Your task to perform on an android device: Search for the best rated TV on Target Image 0: 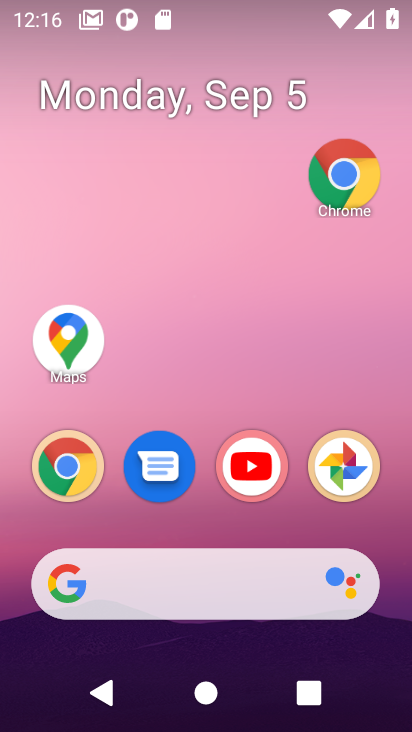
Step 0: drag from (293, 373) to (343, 17)
Your task to perform on an android device: Search for the best rated TV on Target Image 1: 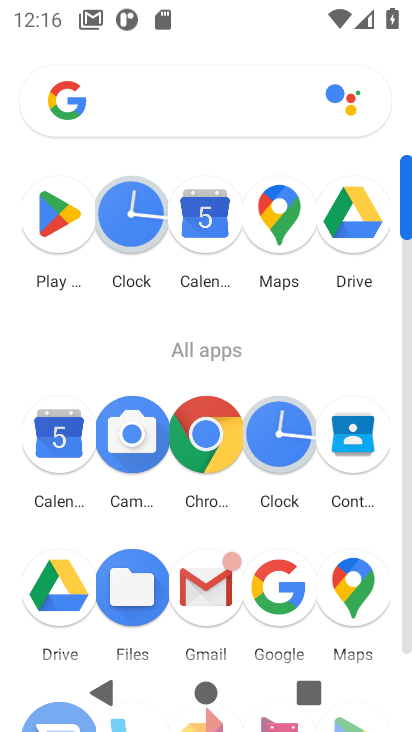
Step 1: click (202, 447)
Your task to perform on an android device: Search for the best rated TV on Target Image 2: 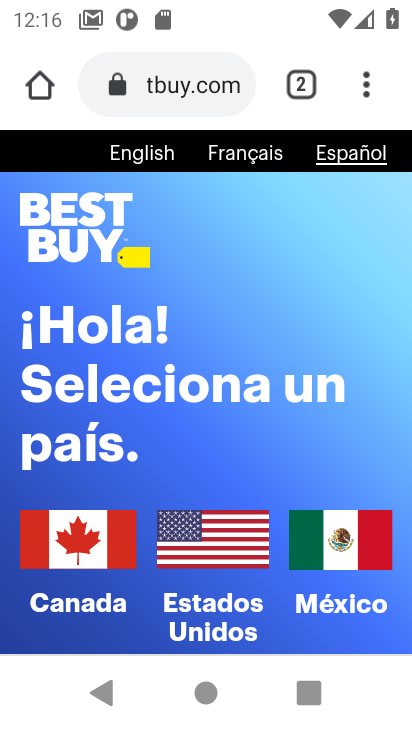
Step 2: click (183, 85)
Your task to perform on an android device: Search for the best rated TV on Target Image 3: 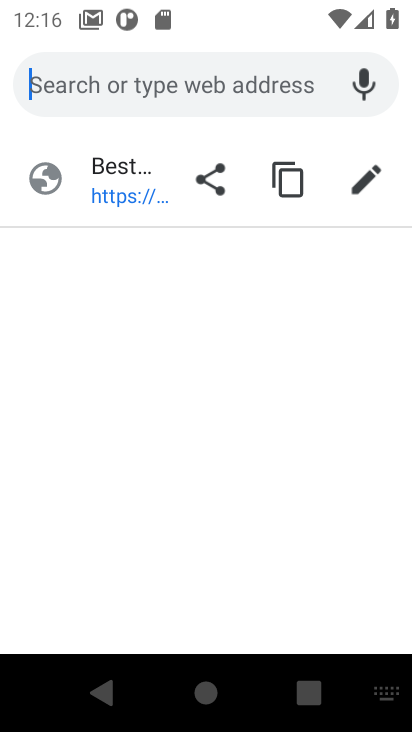
Step 3: type "Target"
Your task to perform on an android device: Search for the best rated TV on Target Image 4: 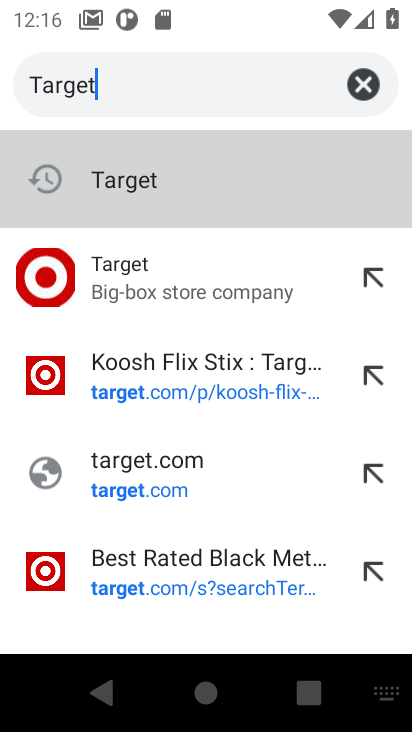
Step 4: click (124, 175)
Your task to perform on an android device: Search for the best rated TV on Target Image 5: 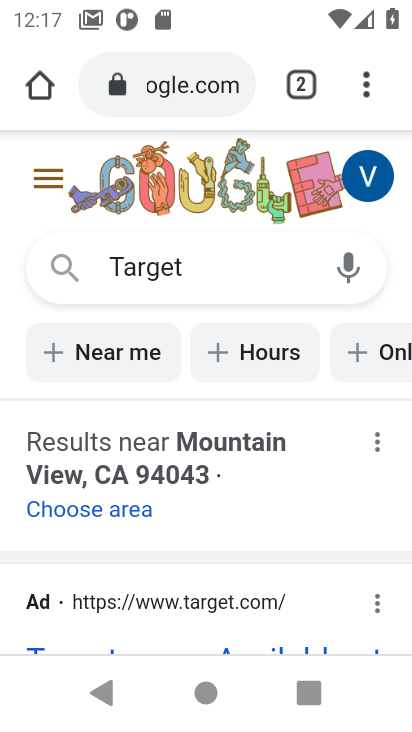
Step 5: drag from (229, 477) to (155, 132)
Your task to perform on an android device: Search for the best rated TV on Target Image 6: 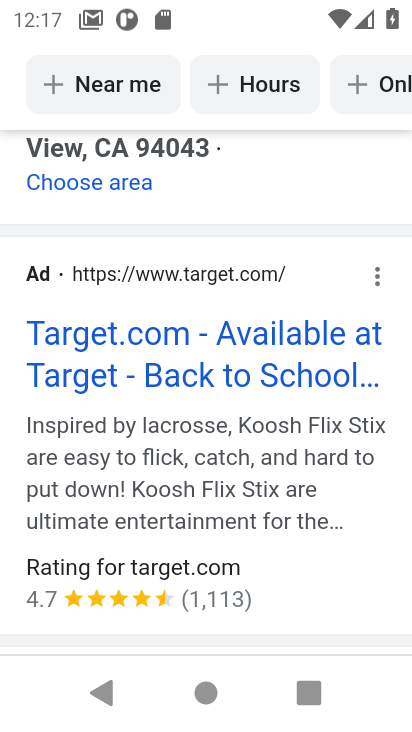
Step 6: click (168, 344)
Your task to perform on an android device: Search for the best rated TV on Target Image 7: 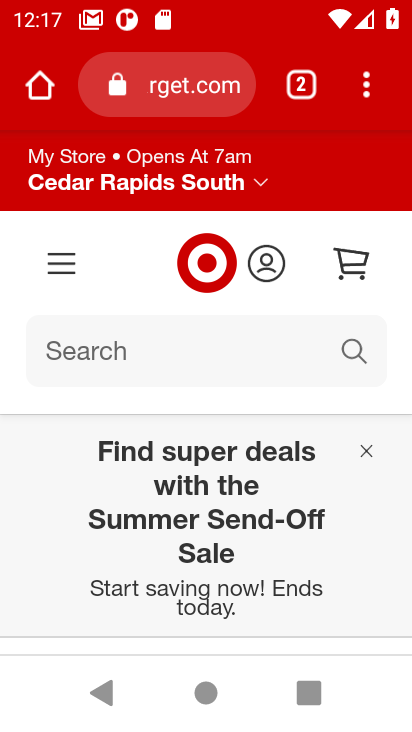
Step 7: click (363, 361)
Your task to perform on an android device: Search for the best rated TV on Target Image 8: 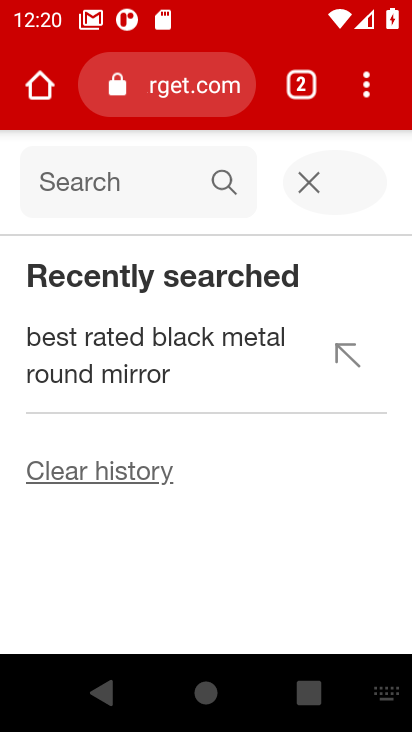
Step 8: type " the best rated"
Your task to perform on an android device: Search for the best rated TV on Target Image 9: 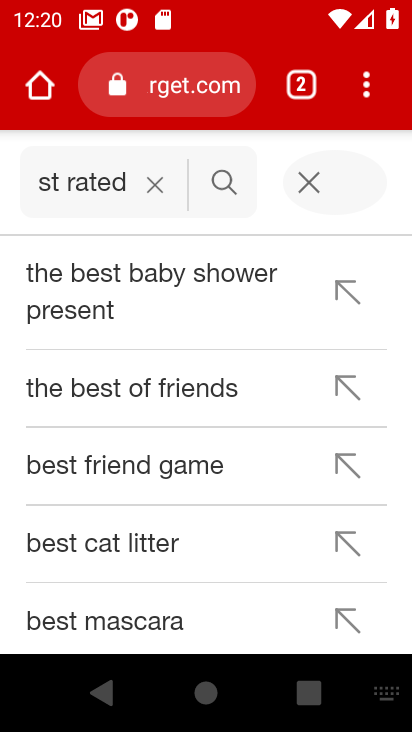
Step 9: task complete